Your task to perform on an android device: turn on the 24-hour format for clock Image 0: 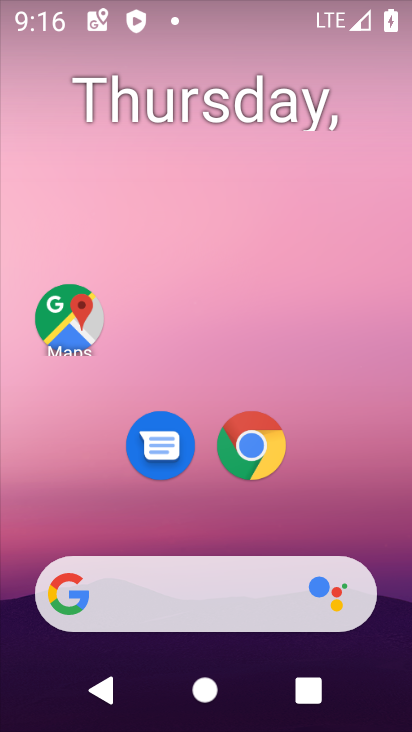
Step 0: drag from (203, 519) to (253, 59)
Your task to perform on an android device: turn on the 24-hour format for clock Image 1: 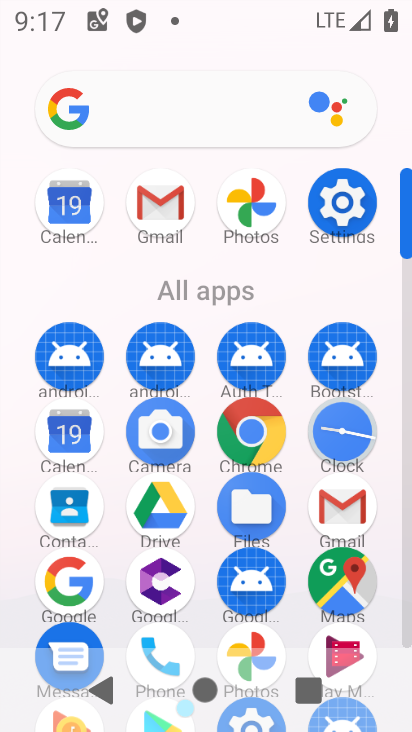
Step 1: click (337, 426)
Your task to perform on an android device: turn on the 24-hour format for clock Image 2: 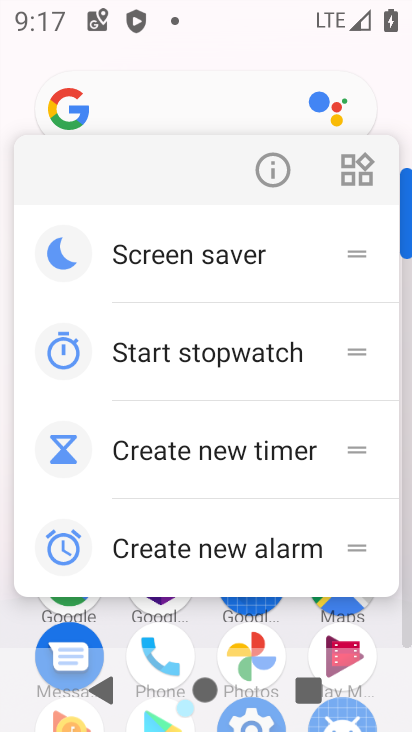
Step 2: click (297, 159)
Your task to perform on an android device: turn on the 24-hour format for clock Image 3: 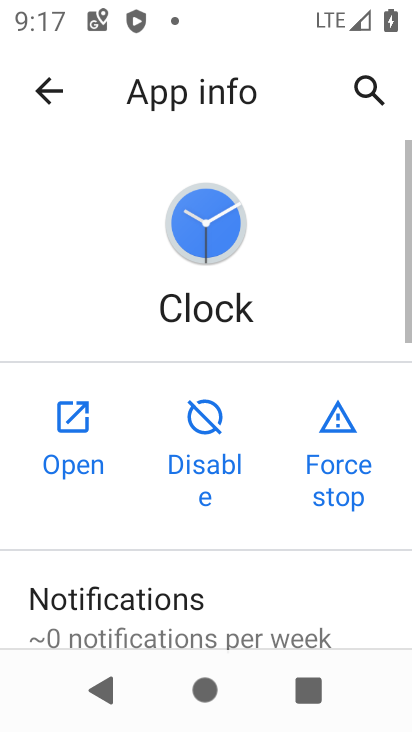
Step 3: click (63, 449)
Your task to perform on an android device: turn on the 24-hour format for clock Image 4: 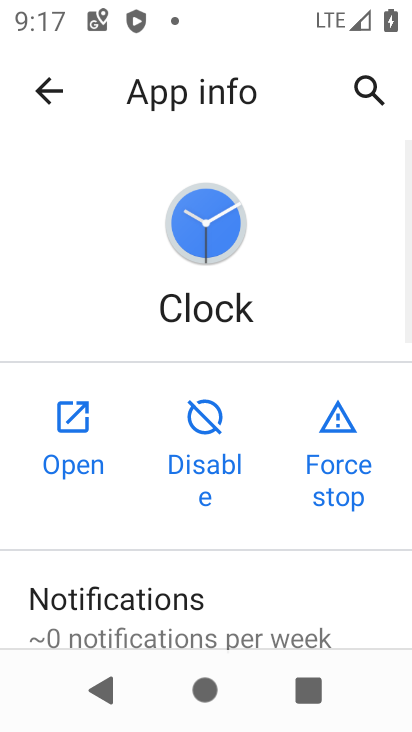
Step 4: click (63, 449)
Your task to perform on an android device: turn on the 24-hour format for clock Image 5: 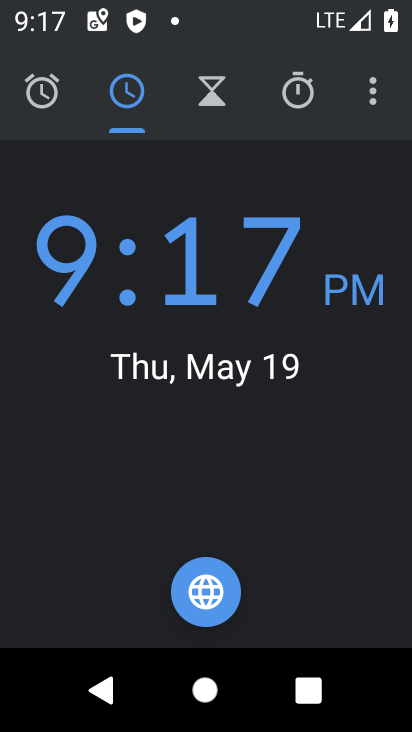
Step 5: drag from (333, 520) to (141, 370)
Your task to perform on an android device: turn on the 24-hour format for clock Image 6: 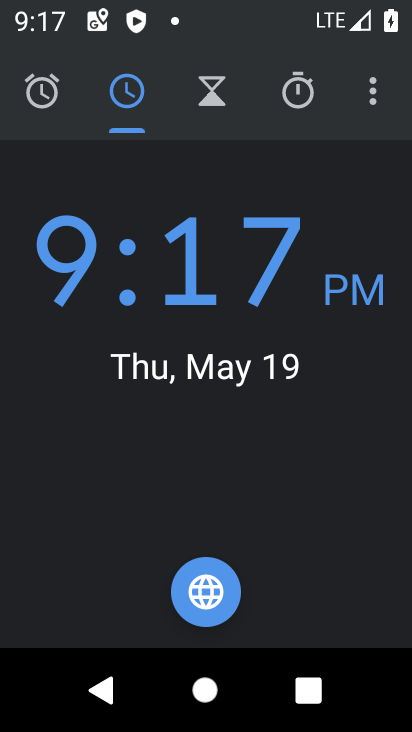
Step 6: click (298, 88)
Your task to perform on an android device: turn on the 24-hour format for clock Image 7: 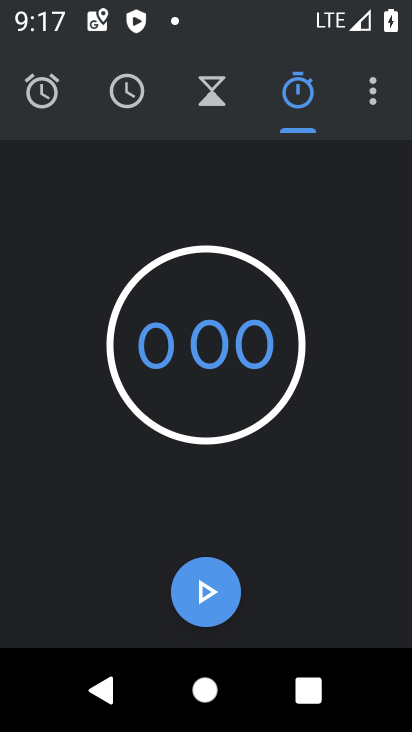
Step 7: click (384, 93)
Your task to perform on an android device: turn on the 24-hour format for clock Image 8: 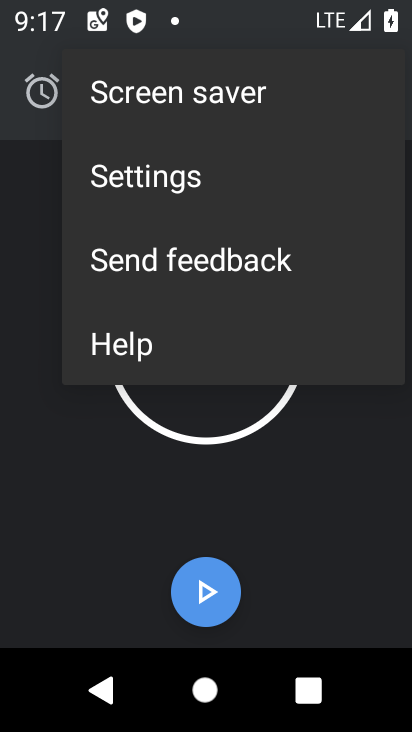
Step 8: click (200, 195)
Your task to perform on an android device: turn on the 24-hour format for clock Image 9: 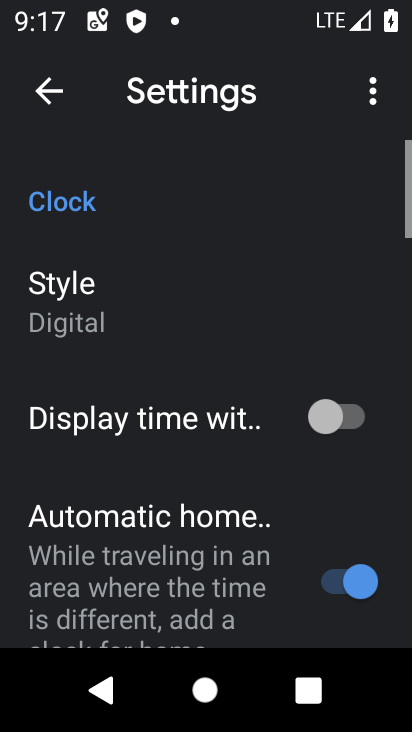
Step 9: drag from (181, 459) to (212, 34)
Your task to perform on an android device: turn on the 24-hour format for clock Image 10: 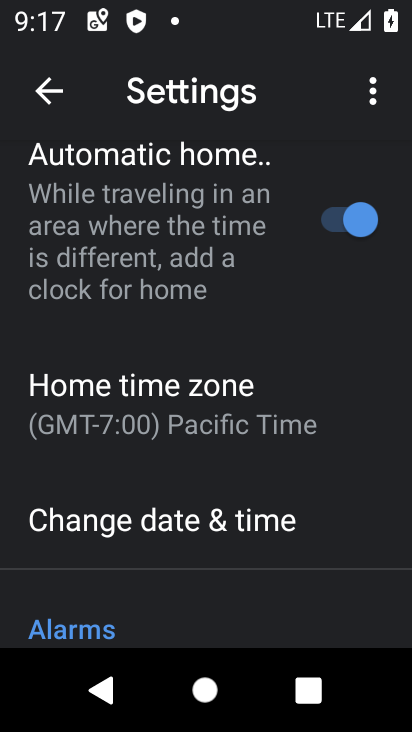
Step 10: click (182, 526)
Your task to perform on an android device: turn on the 24-hour format for clock Image 11: 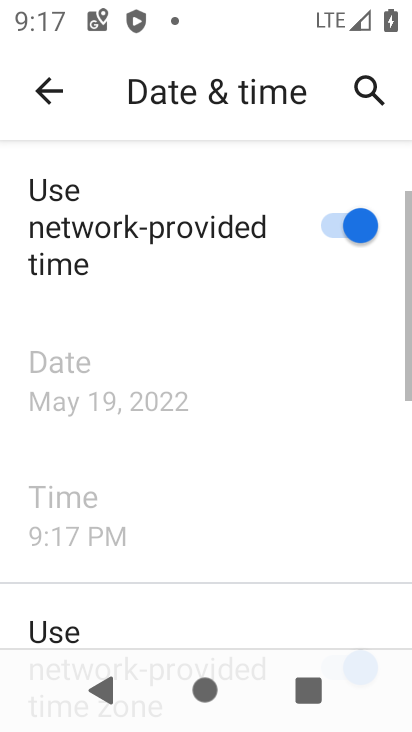
Step 11: drag from (210, 538) to (296, 100)
Your task to perform on an android device: turn on the 24-hour format for clock Image 12: 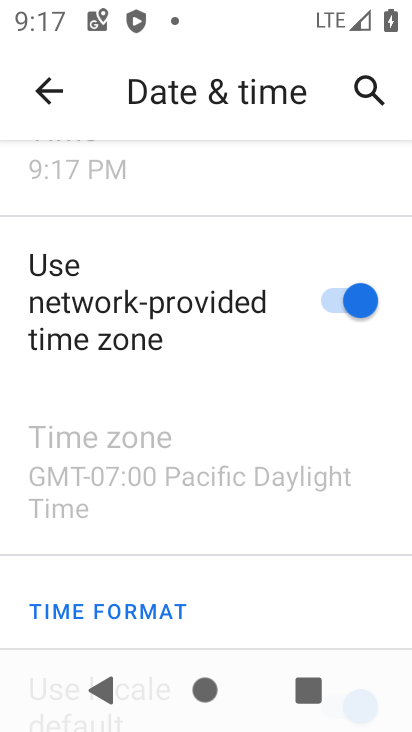
Step 12: drag from (203, 563) to (293, 159)
Your task to perform on an android device: turn on the 24-hour format for clock Image 13: 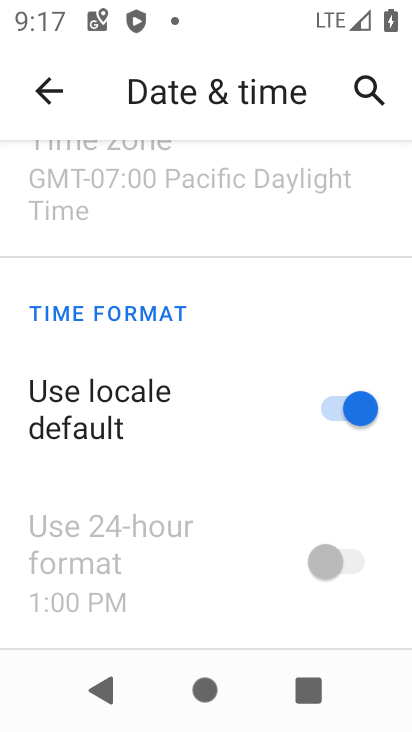
Step 13: drag from (196, 599) to (241, 305)
Your task to perform on an android device: turn on the 24-hour format for clock Image 14: 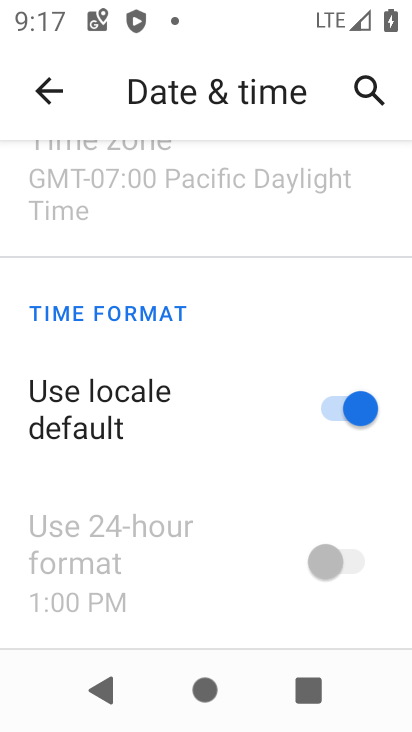
Step 14: click (341, 418)
Your task to perform on an android device: turn on the 24-hour format for clock Image 15: 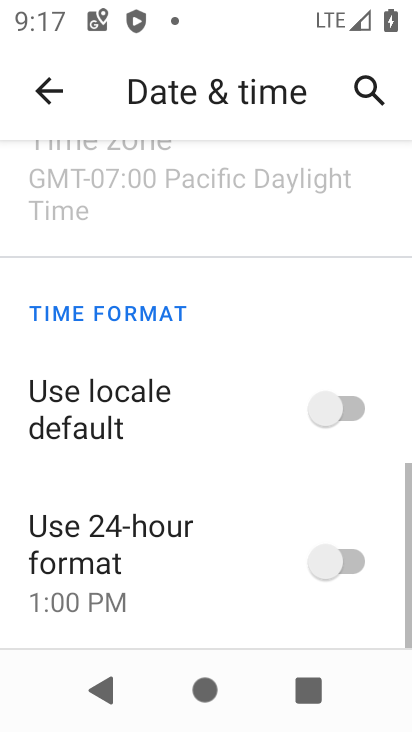
Step 15: click (334, 562)
Your task to perform on an android device: turn on the 24-hour format for clock Image 16: 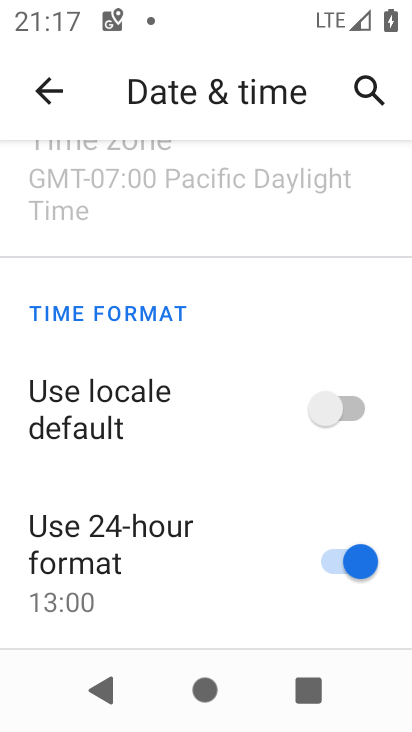
Step 16: task complete